Your task to perform on an android device: allow notifications from all sites in the chrome app Image 0: 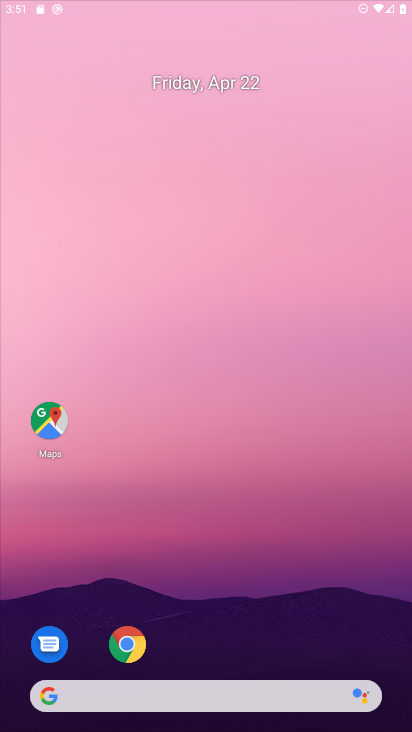
Step 0: drag from (241, 545) to (240, 118)
Your task to perform on an android device: allow notifications from all sites in the chrome app Image 1: 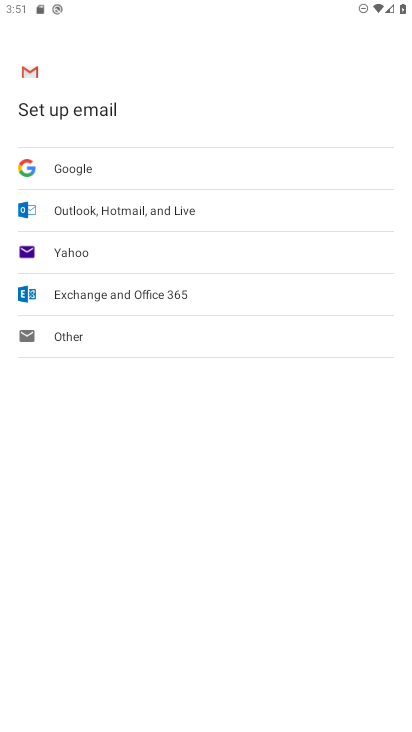
Step 1: press home button
Your task to perform on an android device: allow notifications from all sites in the chrome app Image 2: 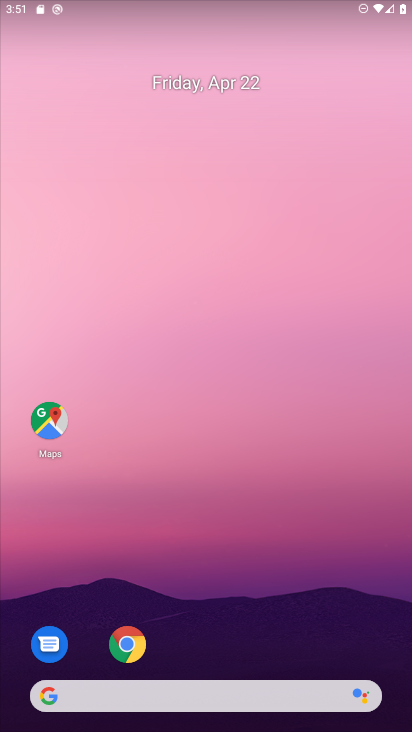
Step 2: drag from (218, 578) to (220, 50)
Your task to perform on an android device: allow notifications from all sites in the chrome app Image 3: 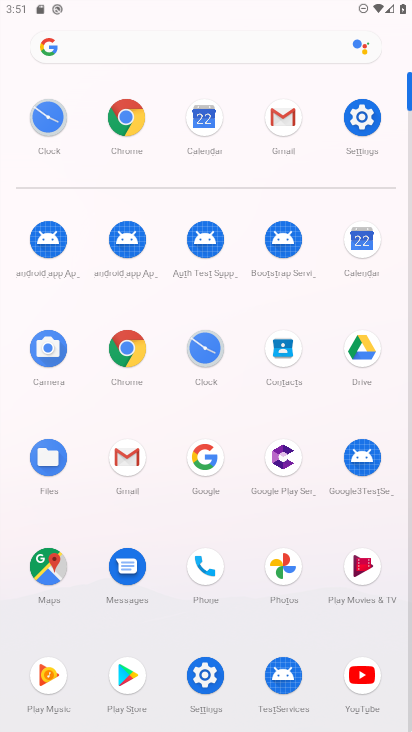
Step 3: click (134, 347)
Your task to perform on an android device: allow notifications from all sites in the chrome app Image 4: 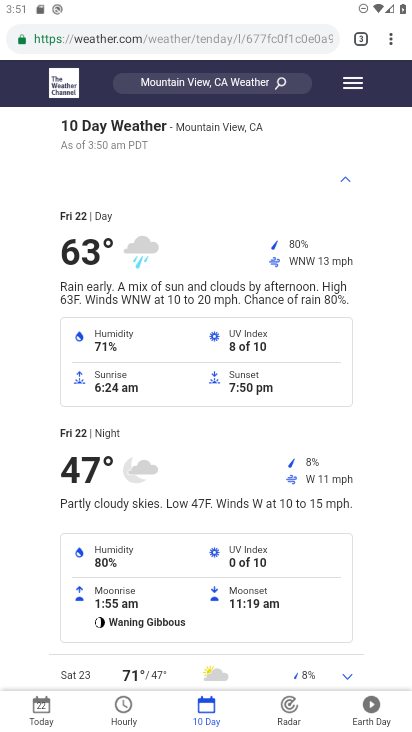
Step 4: drag from (386, 37) to (267, 517)
Your task to perform on an android device: allow notifications from all sites in the chrome app Image 5: 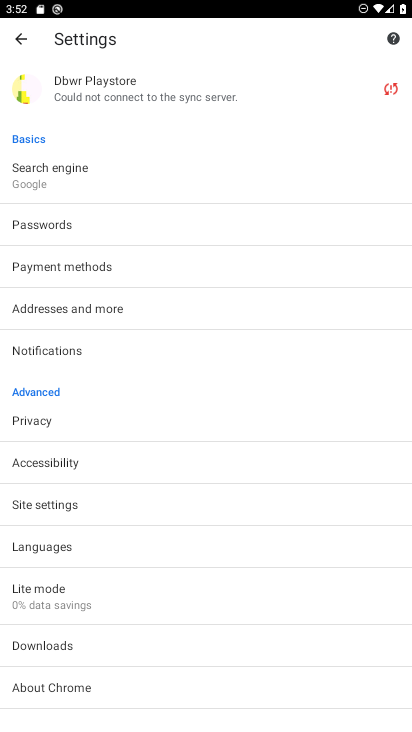
Step 5: click (43, 347)
Your task to perform on an android device: allow notifications from all sites in the chrome app Image 6: 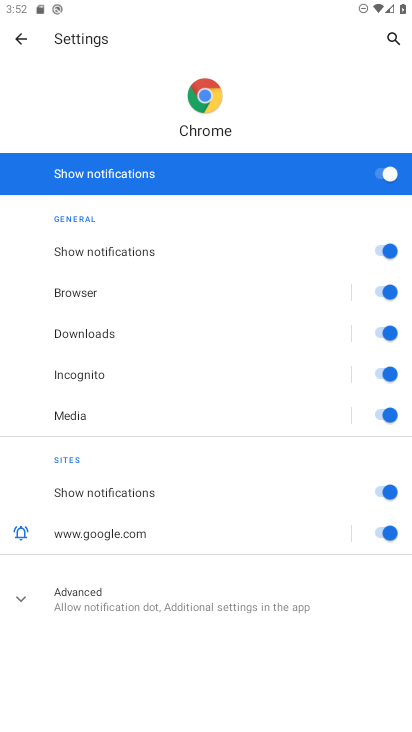
Step 6: click (198, 598)
Your task to perform on an android device: allow notifications from all sites in the chrome app Image 7: 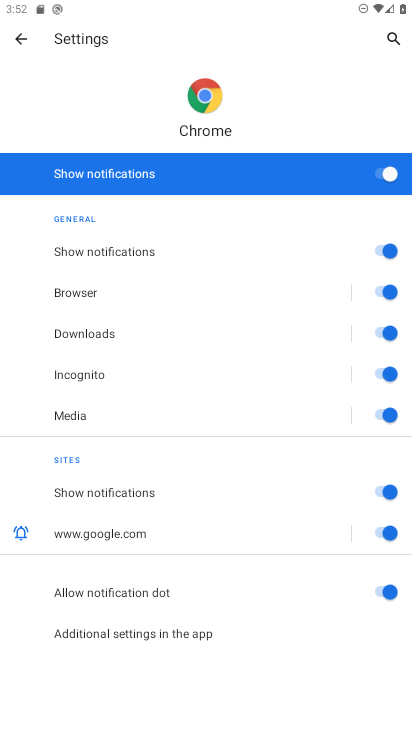
Step 7: task complete